Your task to perform on an android device: Go to CNN.com Image 0: 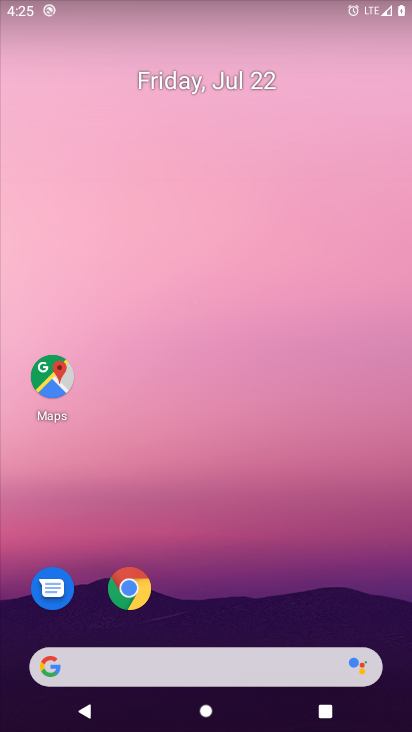
Step 0: drag from (262, 583) to (287, 122)
Your task to perform on an android device: Go to CNN.com Image 1: 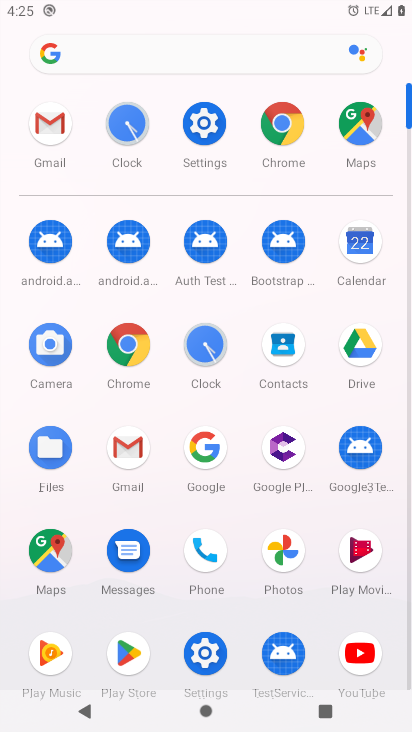
Step 1: click (135, 341)
Your task to perform on an android device: Go to CNN.com Image 2: 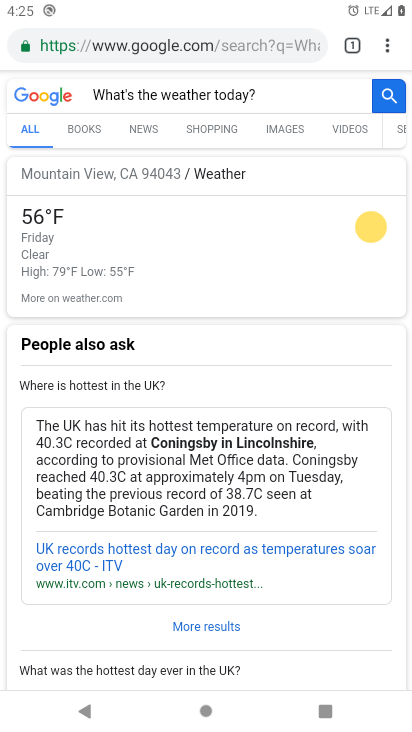
Step 2: click (214, 39)
Your task to perform on an android device: Go to CNN.com Image 3: 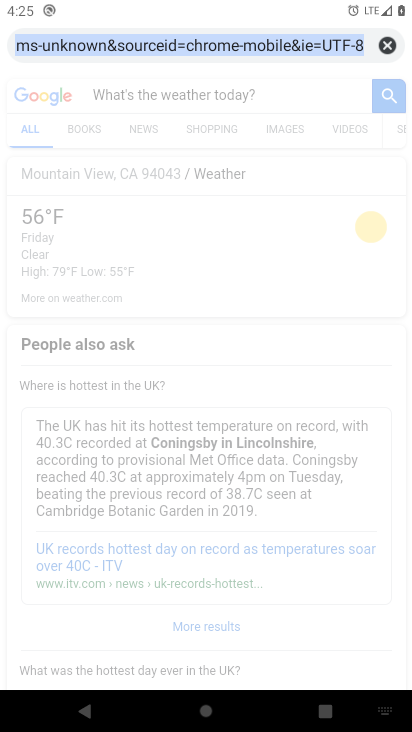
Step 3: click (388, 40)
Your task to perform on an android device: Go to CNN.com Image 4: 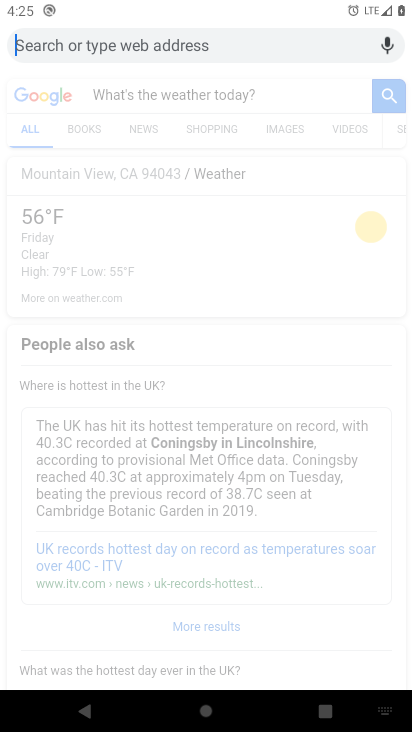
Step 4: type "CNN.com"
Your task to perform on an android device: Go to CNN.com Image 5: 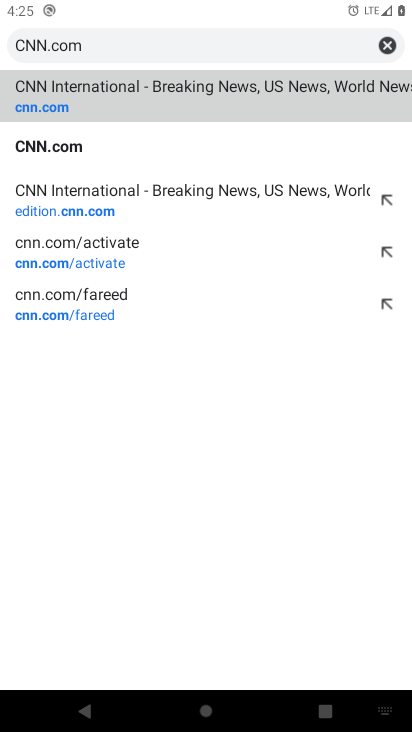
Step 5: click (61, 104)
Your task to perform on an android device: Go to CNN.com Image 6: 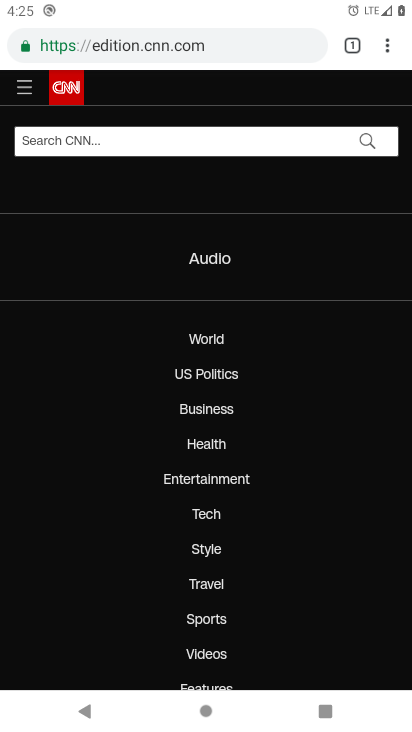
Step 6: task complete